Your task to perform on an android device: move a message to another label in the gmail app Image 0: 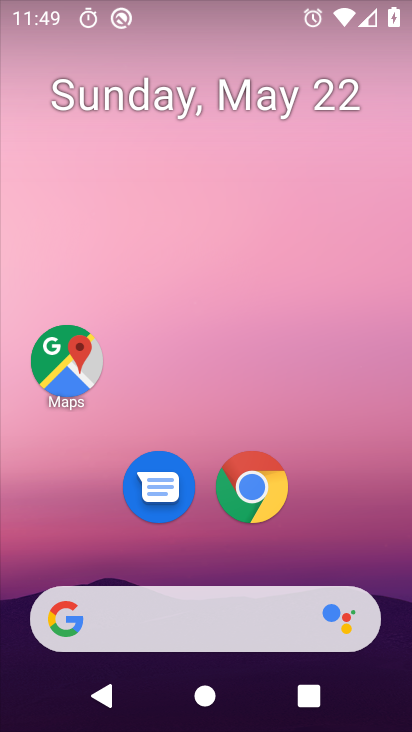
Step 0: drag from (375, 526) to (316, 204)
Your task to perform on an android device: move a message to another label in the gmail app Image 1: 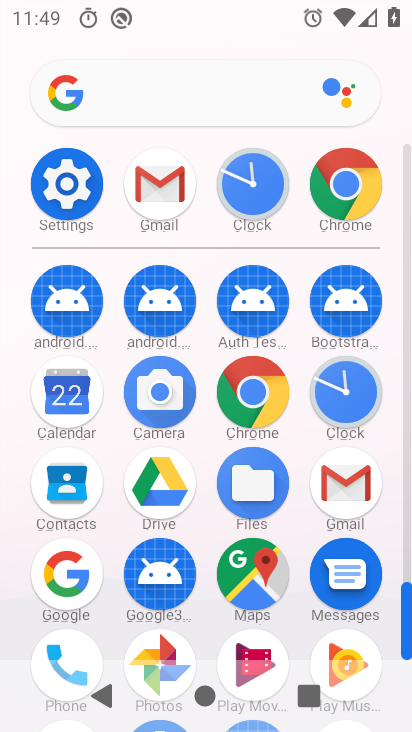
Step 1: click (328, 488)
Your task to perform on an android device: move a message to another label in the gmail app Image 2: 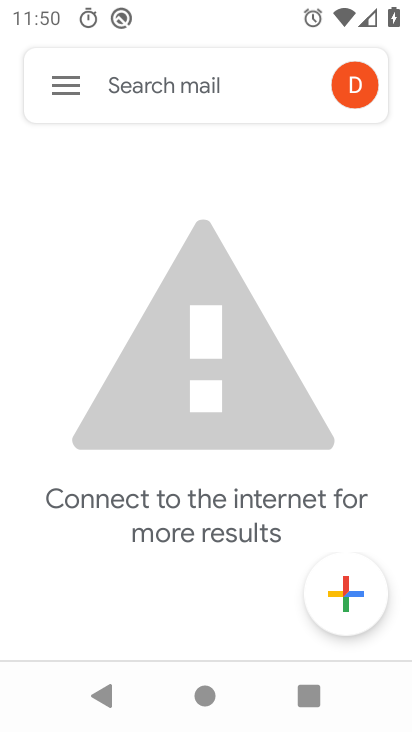
Step 2: click (89, 87)
Your task to perform on an android device: move a message to another label in the gmail app Image 3: 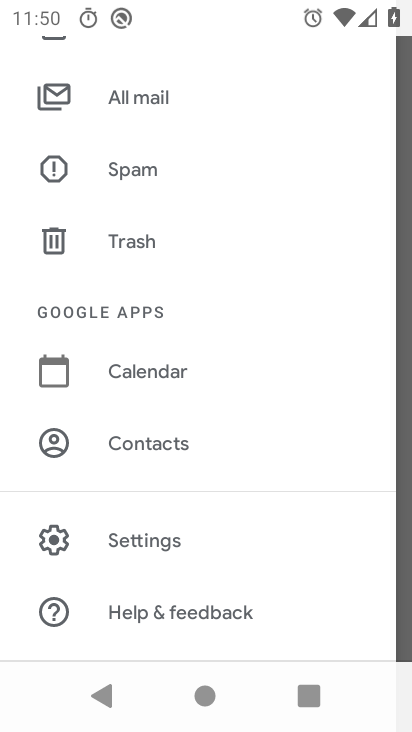
Step 3: click (157, 108)
Your task to perform on an android device: move a message to another label in the gmail app Image 4: 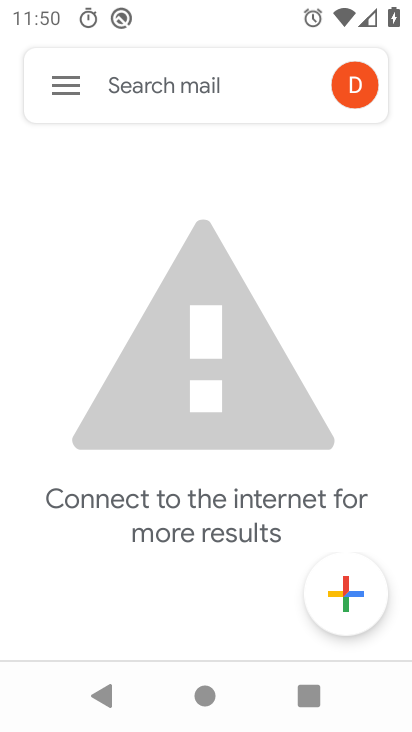
Step 4: click (72, 84)
Your task to perform on an android device: move a message to another label in the gmail app Image 5: 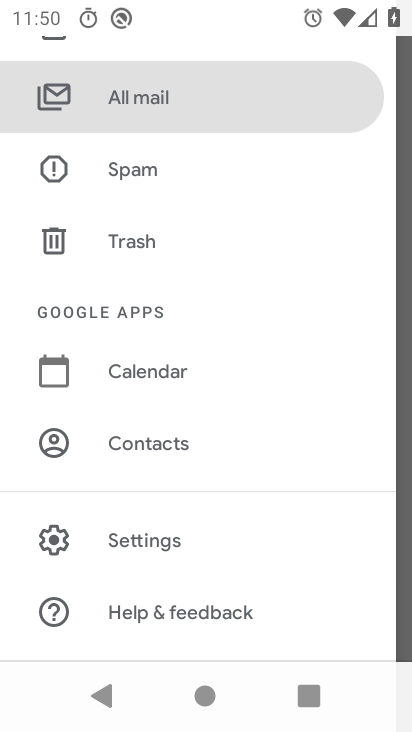
Step 5: click (174, 101)
Your task to perform on an android device: move a message to another label in the gmail app Image 6: 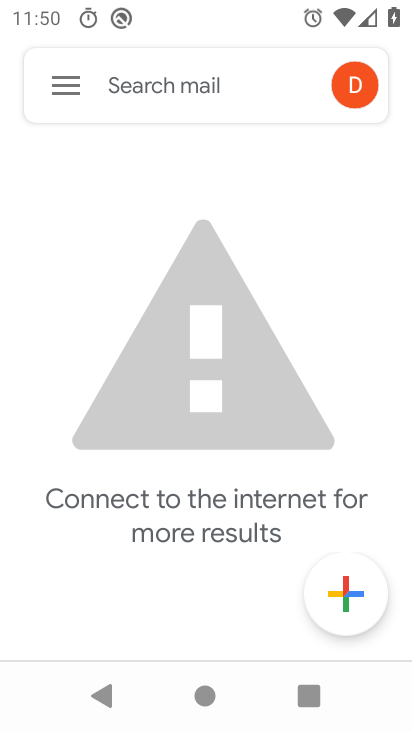
Step 6: task complete